Your task to perform on an android device: Search for seafood restaurants on Google Maps Image 0: 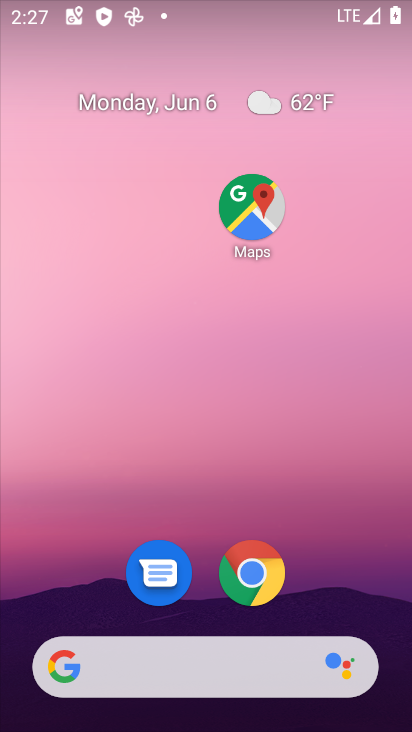
Step 0: drag from (250, 487) to (146, 25)
Your task to perform on an android device: Search for seafood restaurants on Google Maps Image 1: 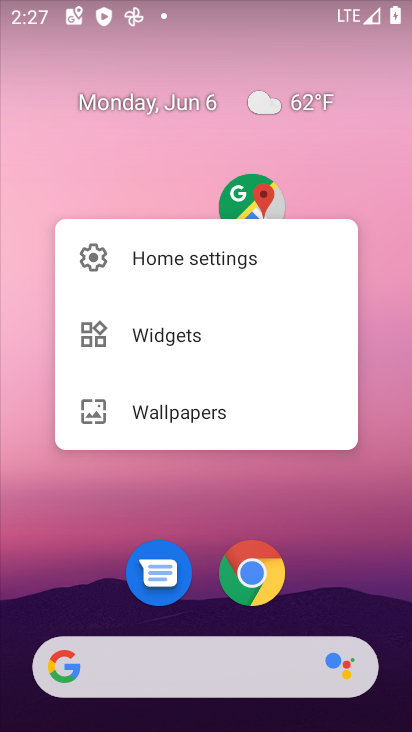
Step 1: click (190, 516)
Your task to perform on an android device: Search for seafood restaurants on Google Maps Image 2: 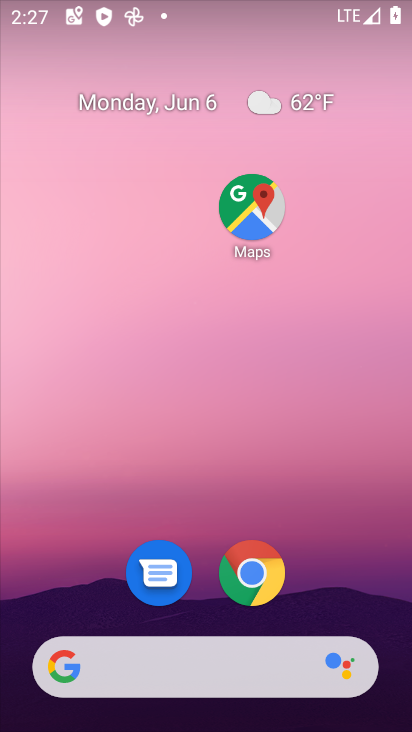
Step 2: drag from (208, 349) to (234, 1)
Your task to perform on an android device: Search for seafood restaurants on Google Maps Image 3: 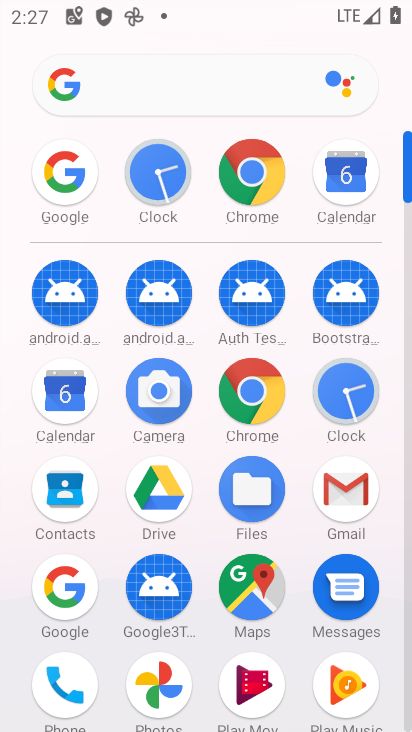
Step 3: click (251, 615)
Your task to perform on an android device: Search for seafood restaurants on Google Maps Image 4: 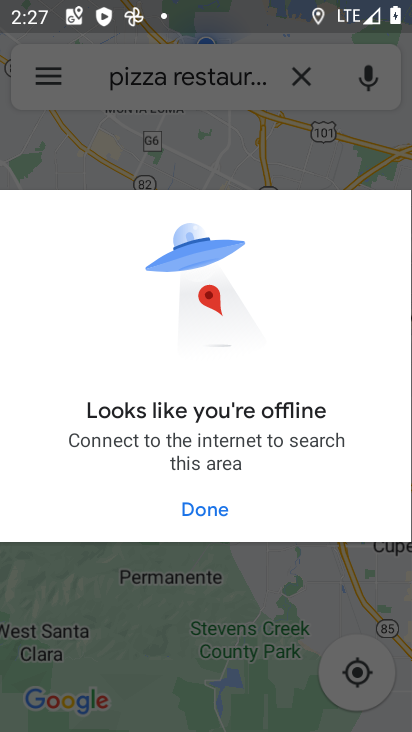
Step 4: click (217, 513)
Your task to perform on an android device: Search for seafood restaurants on Google Maps Image 5: 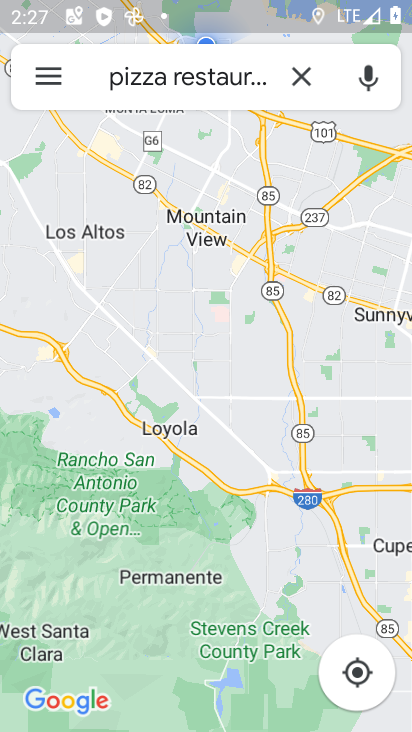
Step 5: click (310, 86)
Your task to perform on an android device: Search for seafood restaurants on Google Maps Image 6: 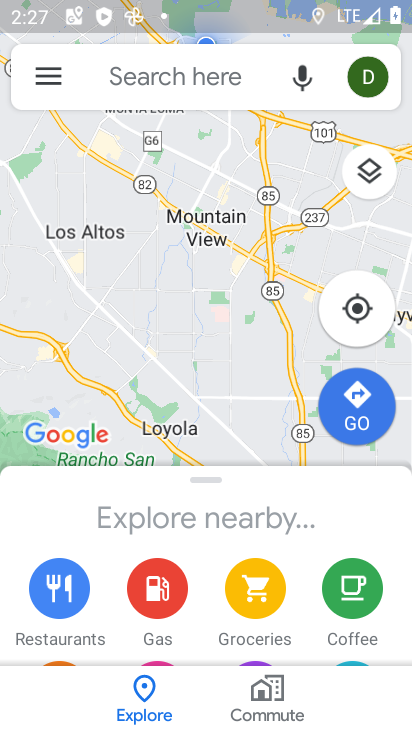
Step 6: click (304, 79)
Your task to perform on an android device: Search for seafood restaurants on Google Maps Image 7: 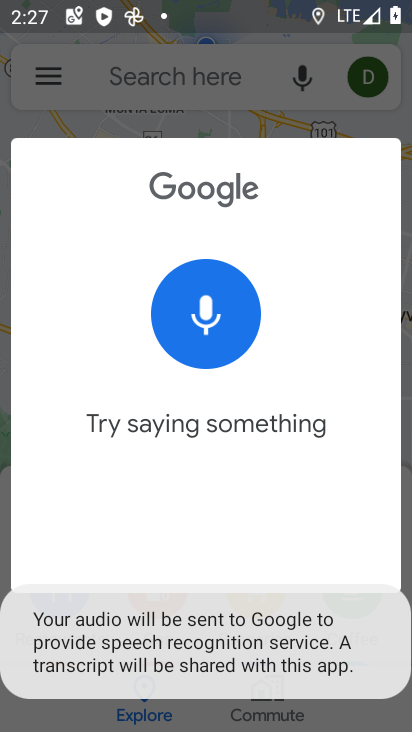
Step 7: click (199, 100)
Your task to perform on an android device: Search for seafood restaurants on Google Maps Image 8: 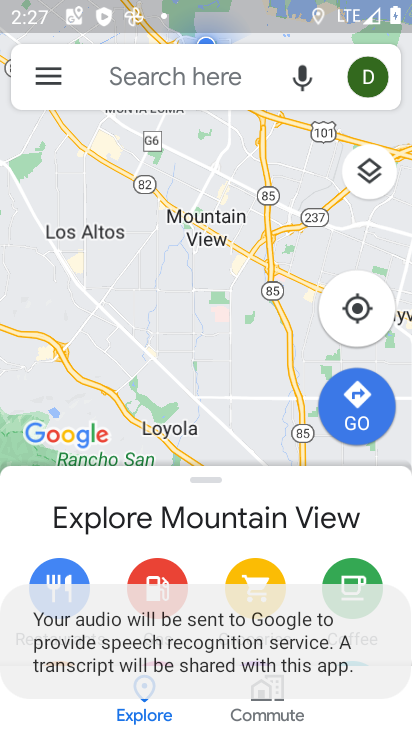
Step 8: click (197, 119)
Your task to perform on an android device: Search for seafood restaurants on Google Maps Image 9: 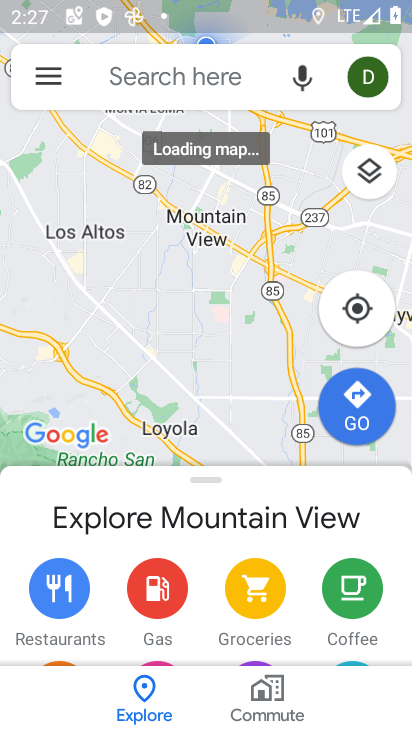
Step 9: click (183, 71)
Your task to perform on an android device: Search for seafood restaurants on Google Maps Image 10: 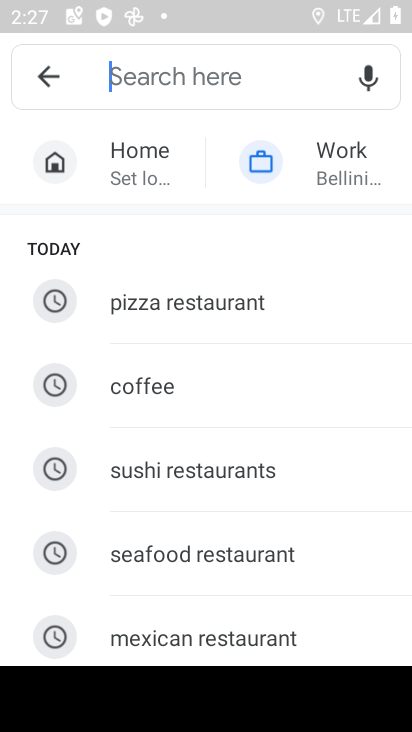
Step 10: click (230, 546)
Your task to perform on an android device: Search for seafood restaurants on Google Maps Image 11: 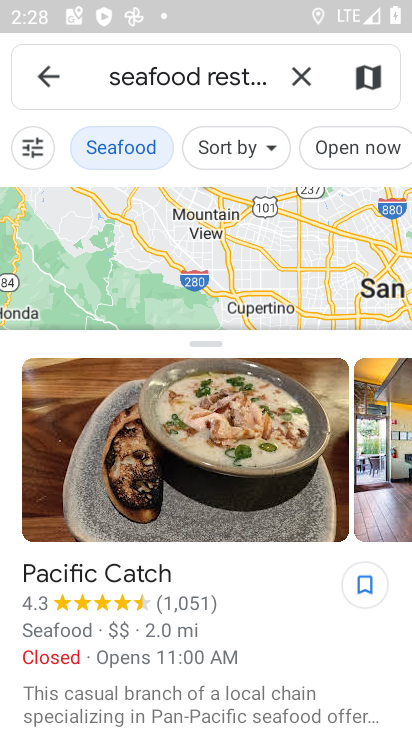
Step 11: task complete